Your task to perform on an android device: change text size in settings app Image 0: 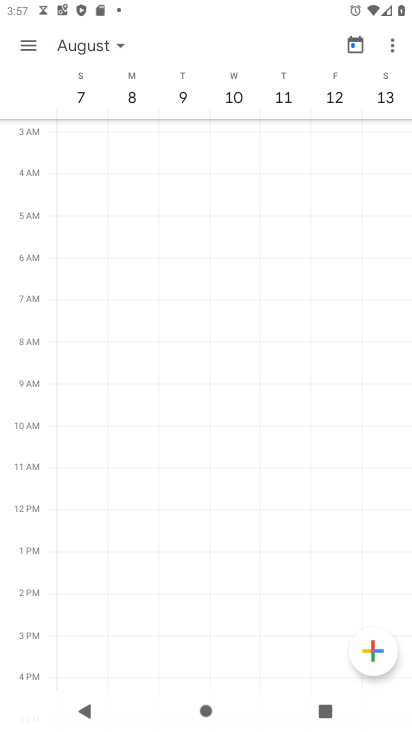
Step 0: press home button
Your task to perform on an android device: change text size in settings app Image 1: 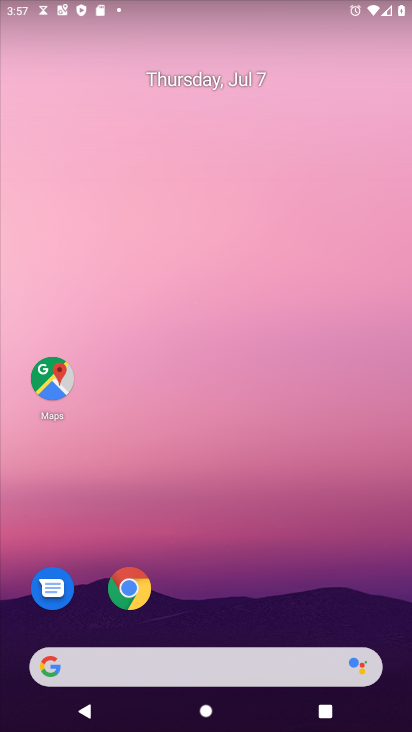
Step 1: drag from (227, 628) to (211, 180)
Your task to perform on an android device: change text size in settings app Image 2: 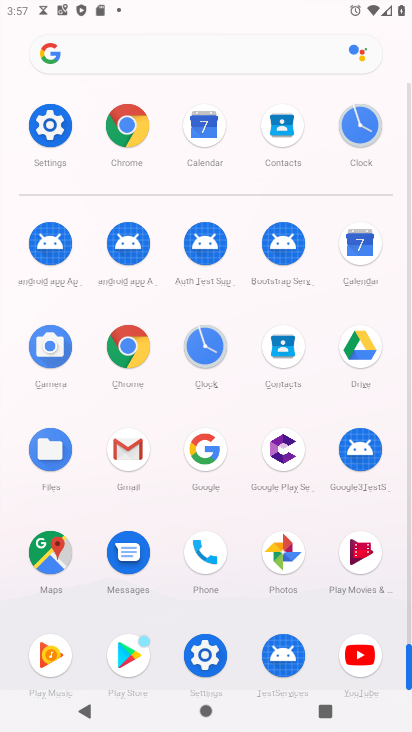
Step 2: click (47, 125)
Your task to perform on an android device: change text size in settings app Image 3: 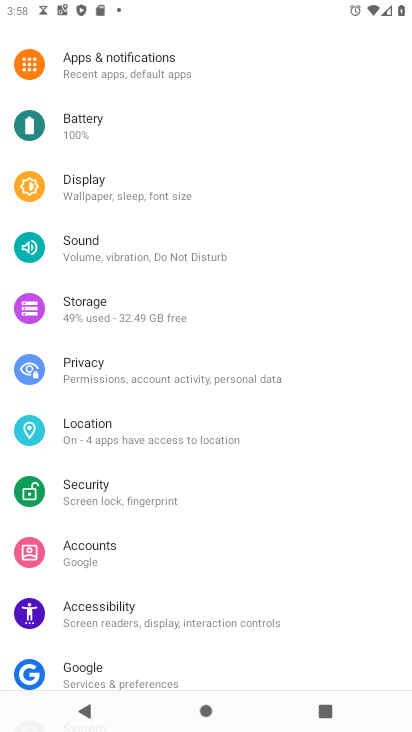
Step 3: click (102, 605)
Your task to perform on an android device: change text size in settings app Image 4: 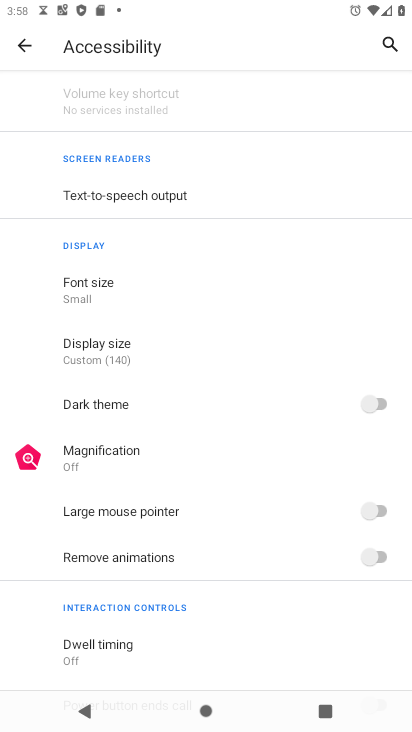
Step 4: click (101, 281)
Your task to perform on an android device: change text size in settings app Image 5: 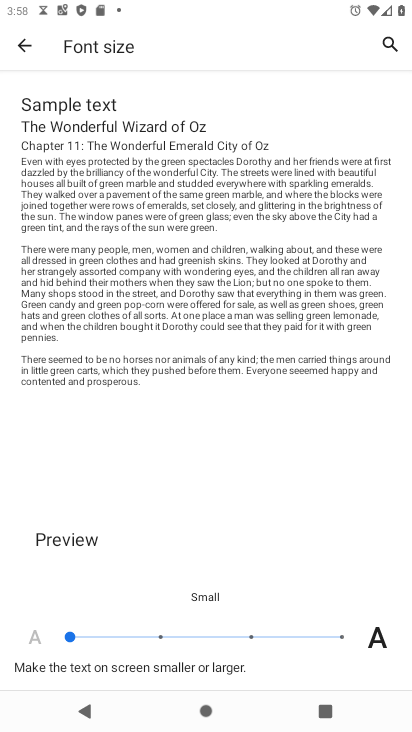
Step 5: click (253, 636)
Your task to perform on an android device: change text size in settings app Image 6: 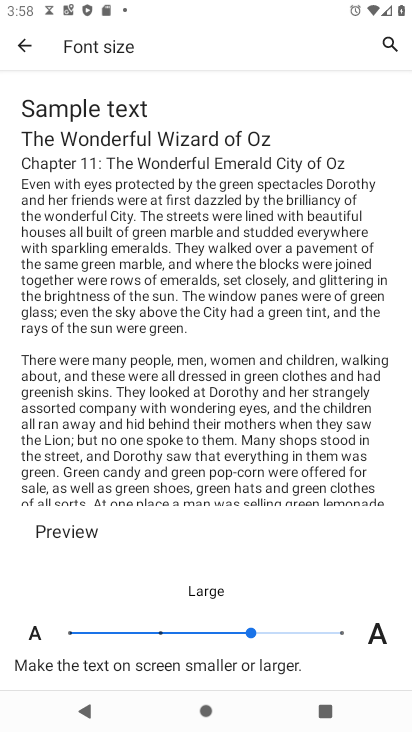
Step 6: task complete